Your task to perform on an android device: turn on javascript in the chrome app Image 0: 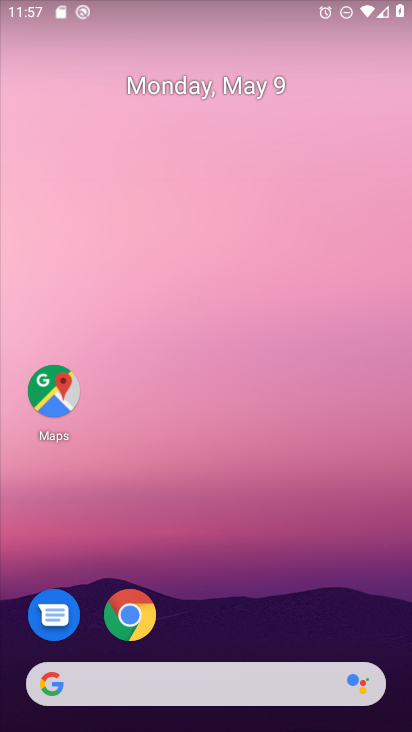
Step 0: drag from (254, 706) to (277, 294)
Your task to perform on an android device: turn on javascript in the chrome app Image 1: 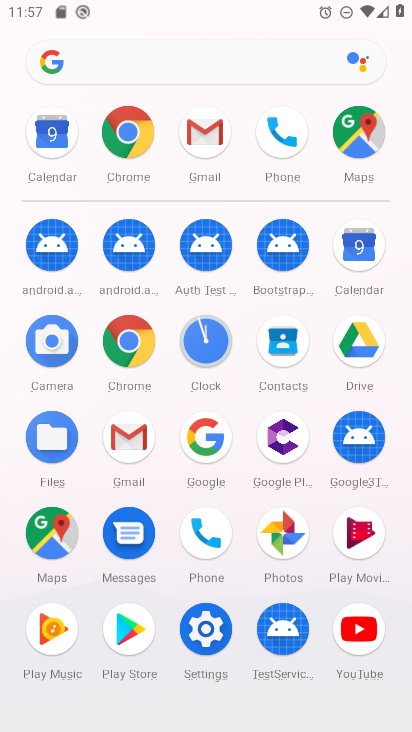
Step 1: click (126, 338)
Your task to perform on an android device: turn on javascript in the chrome app Image 2: 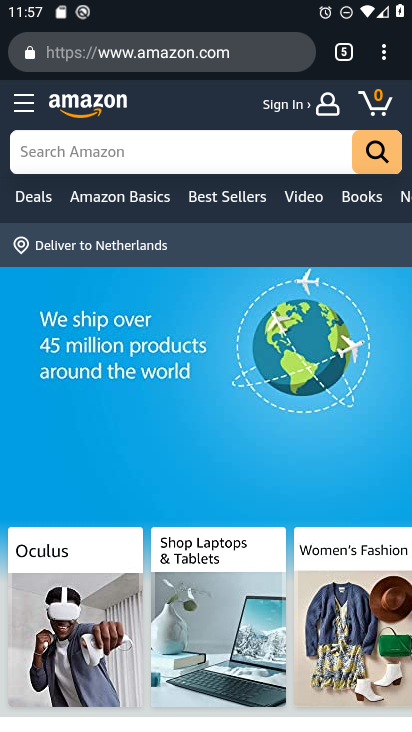
Step 2: click (374, 56)
Your task to perform on an android device: turn on javascript in the chrome app Image 3: 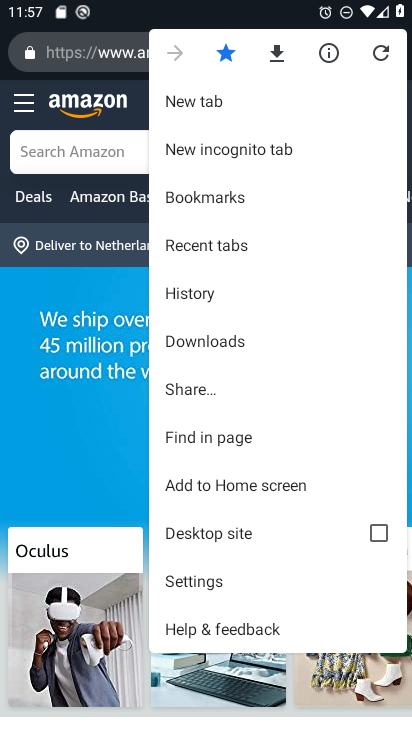
Step 3: click (205, 575)
Your task to perform on an android device: turn on javascript in the chrome app Image 4: 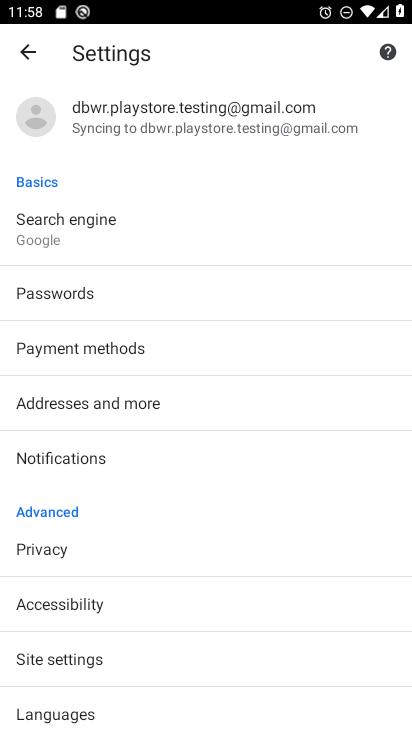
Step 4: click (80, 664)
Your task to perform on an android device: turn on javascript in the chrome app Image 5: 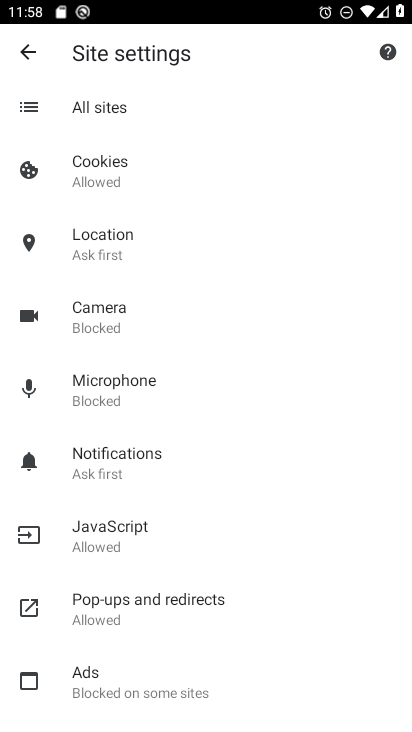
Step 5: click (171, 530)
Your task to perform on an android device: turn on javascript in the chrome app Image 6: 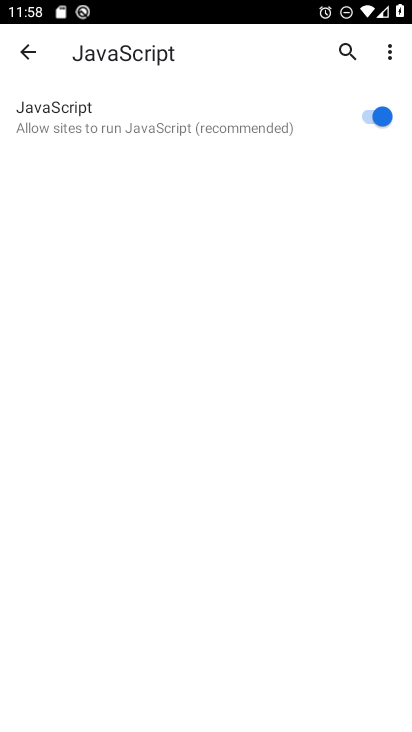
Step 6: task complete